Your task to perform on an android device: install app "NewsBreak: Local News & Alerts" Image 0: 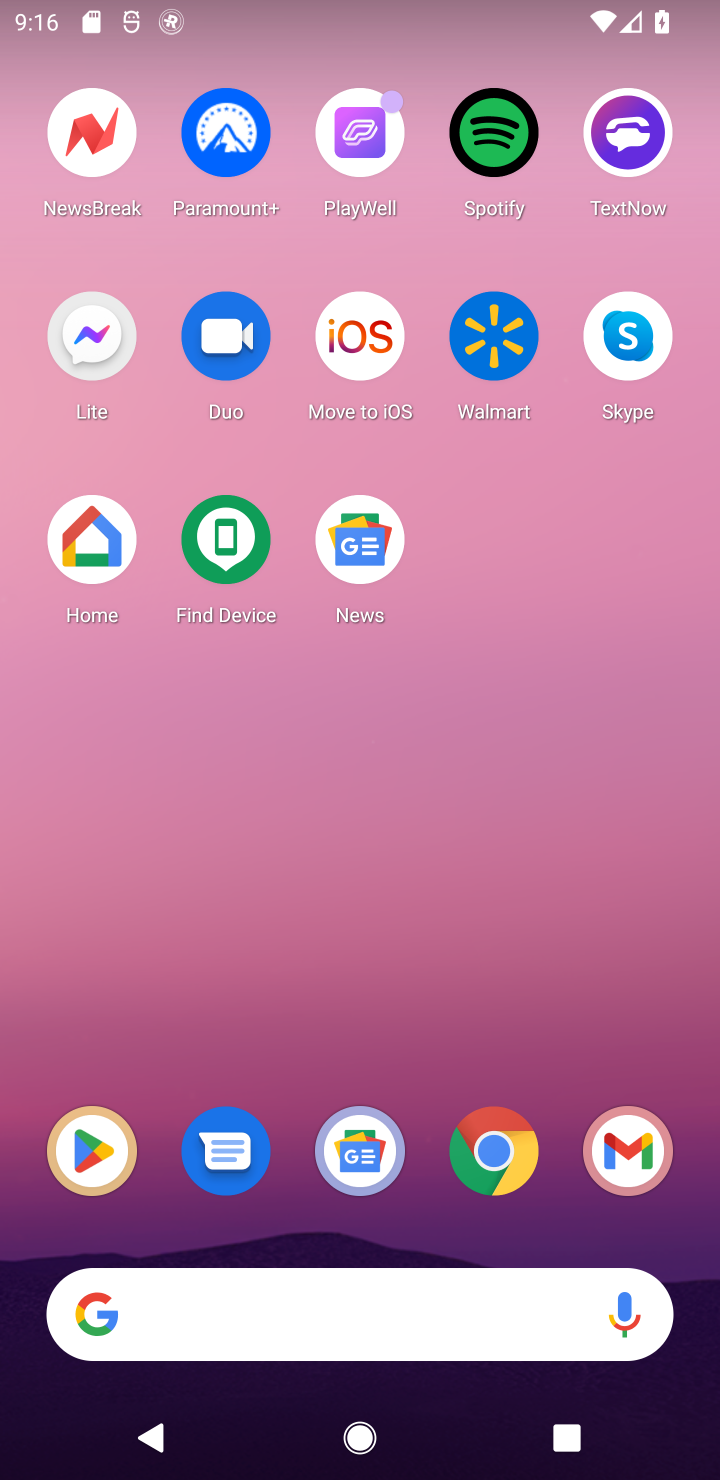
Step 0: click (106, 1146)
Your task to perform on an android device: install app "NewsBreak: Local News & Alerts" Image 1: 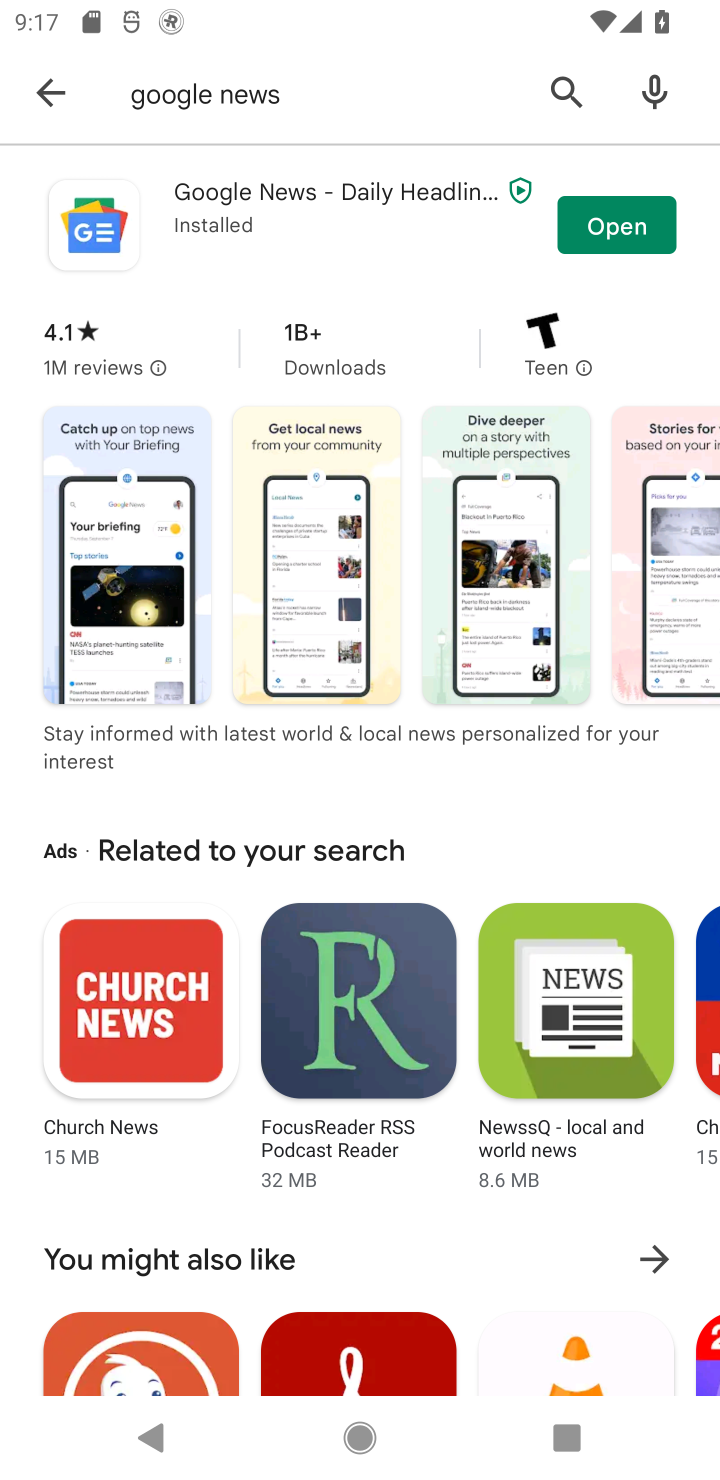
Step 1: click (563, 76)
Your task to perform on an android device: install app "NewsBreak: Local News & Alerts" Image 2: 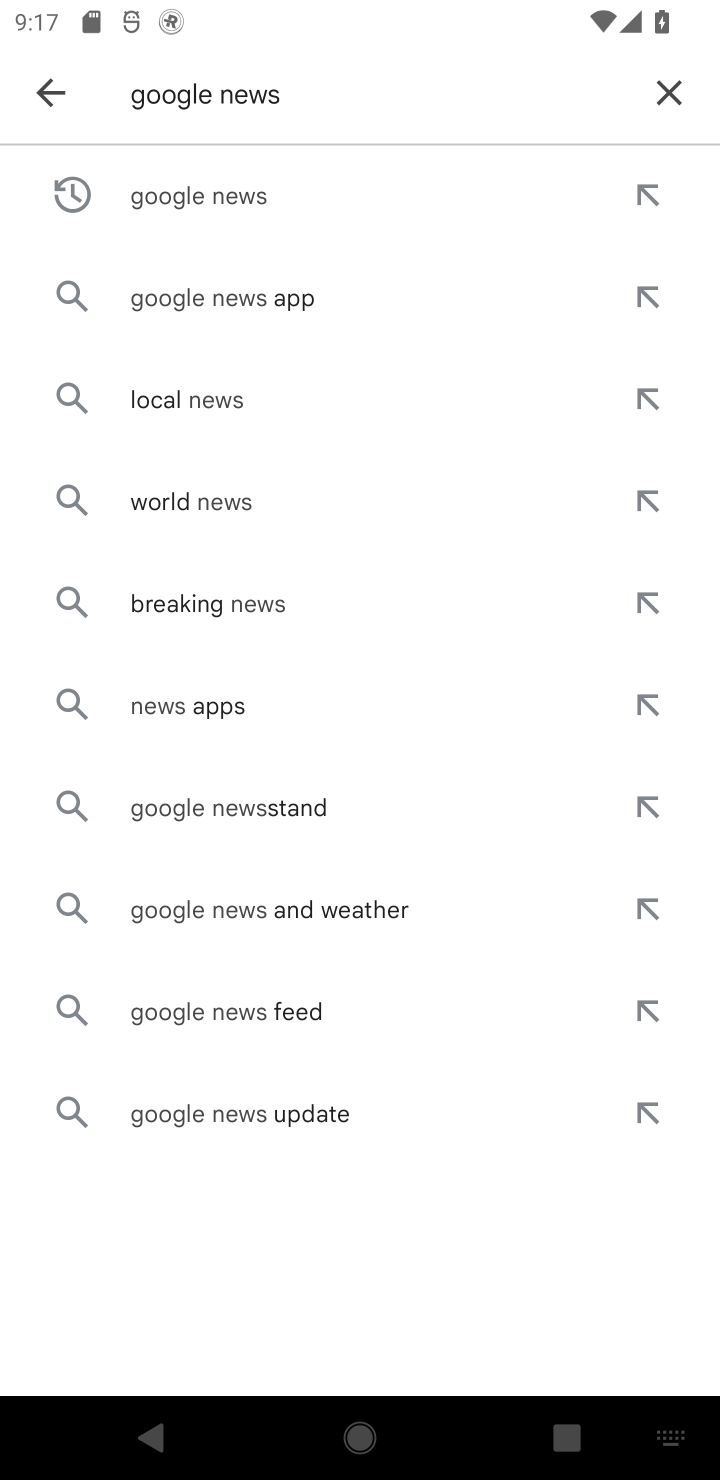
Step 2: click (659, 79)
Your task to perform on an android device: install app "NewsBreak: Local News & Alerts" Image 3: 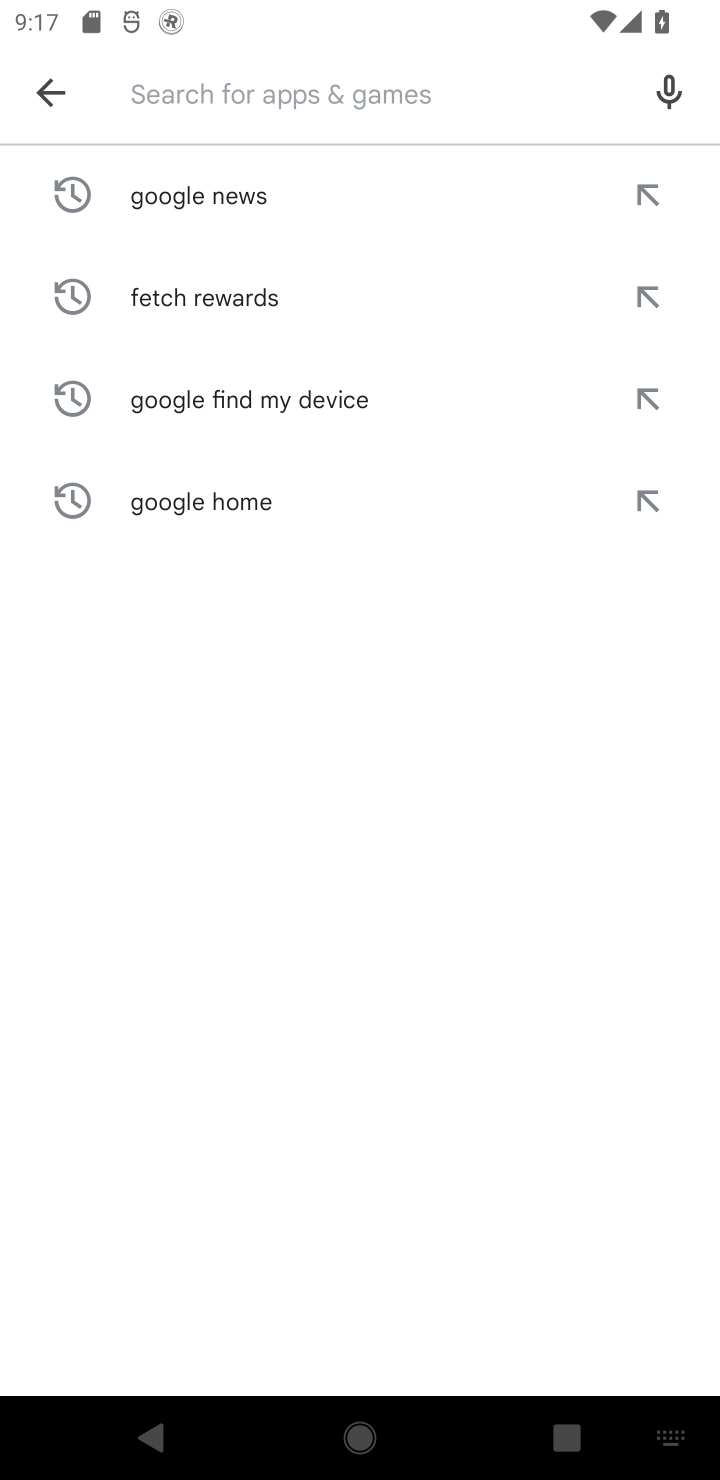
Step 3: type "NewsBreak: Local News & Alerts"
Your task to perform on an android device: install app "NewsBreak: Local News & Alerts" Image 4: 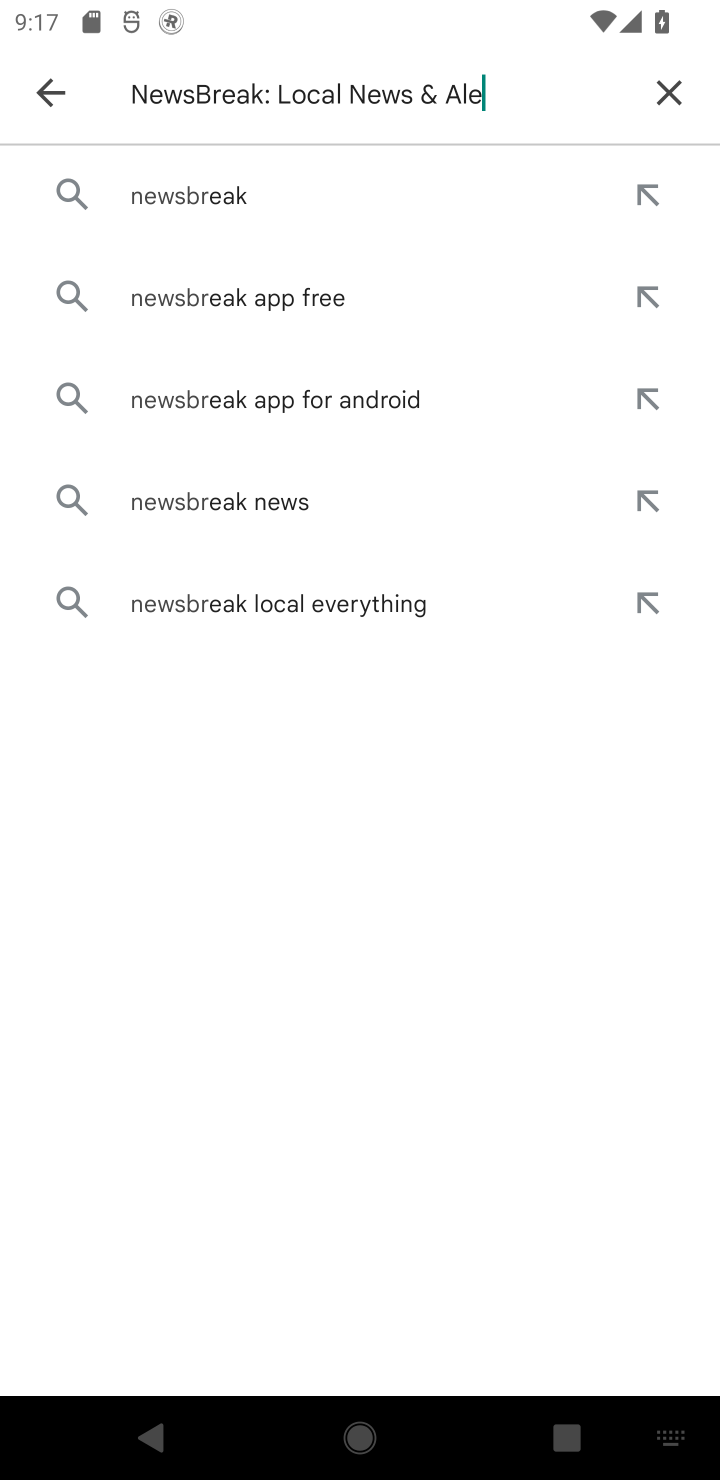
Step 4: type ""
Your task to perform on an android device: install app "NewsBreak: Local News & Alerts" Image 5: 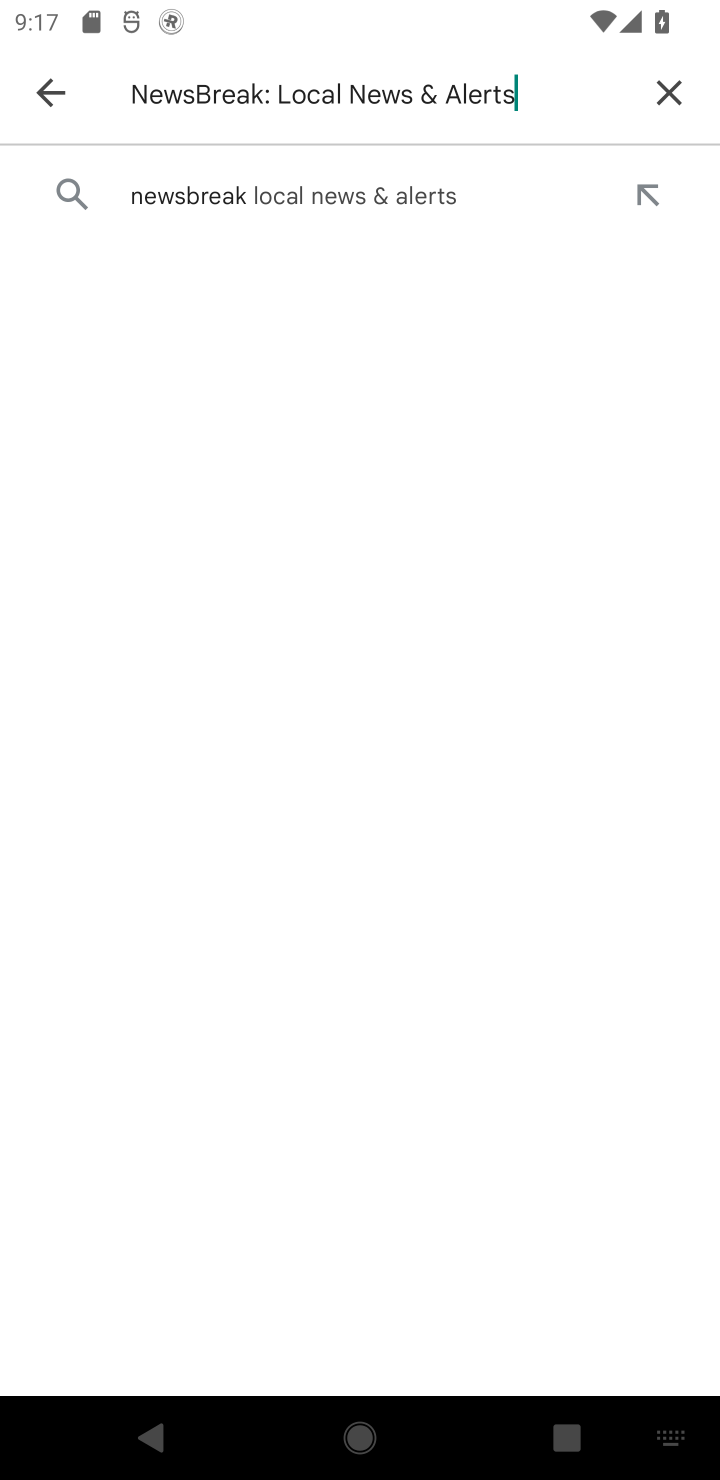
Step 5: click (347, 211)
Your task to perform on an android device: install app "NewsBreak: Local News & Alerts" Image 6: 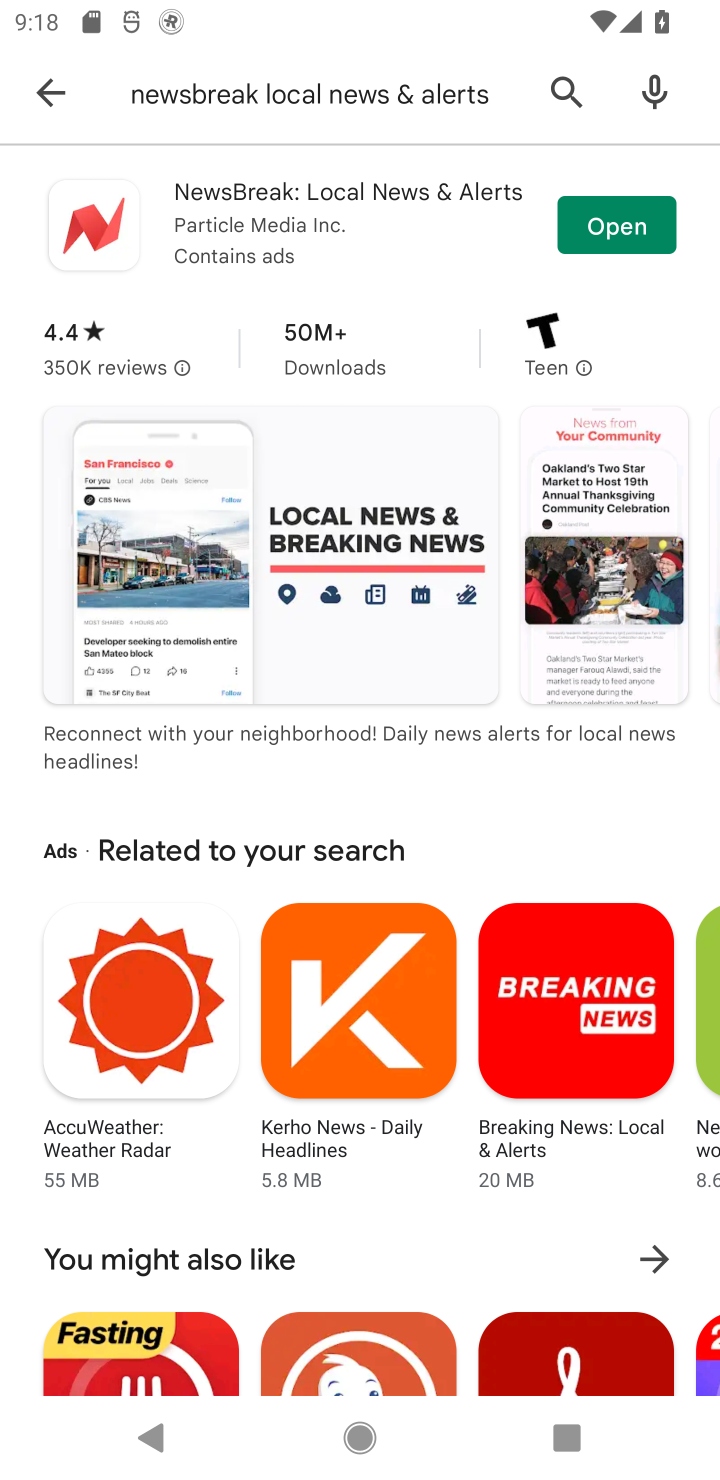
Step 6: task complete